Your task to perform on an android device: open app "Fetch Rewards" (install if not already installed) Image 0: 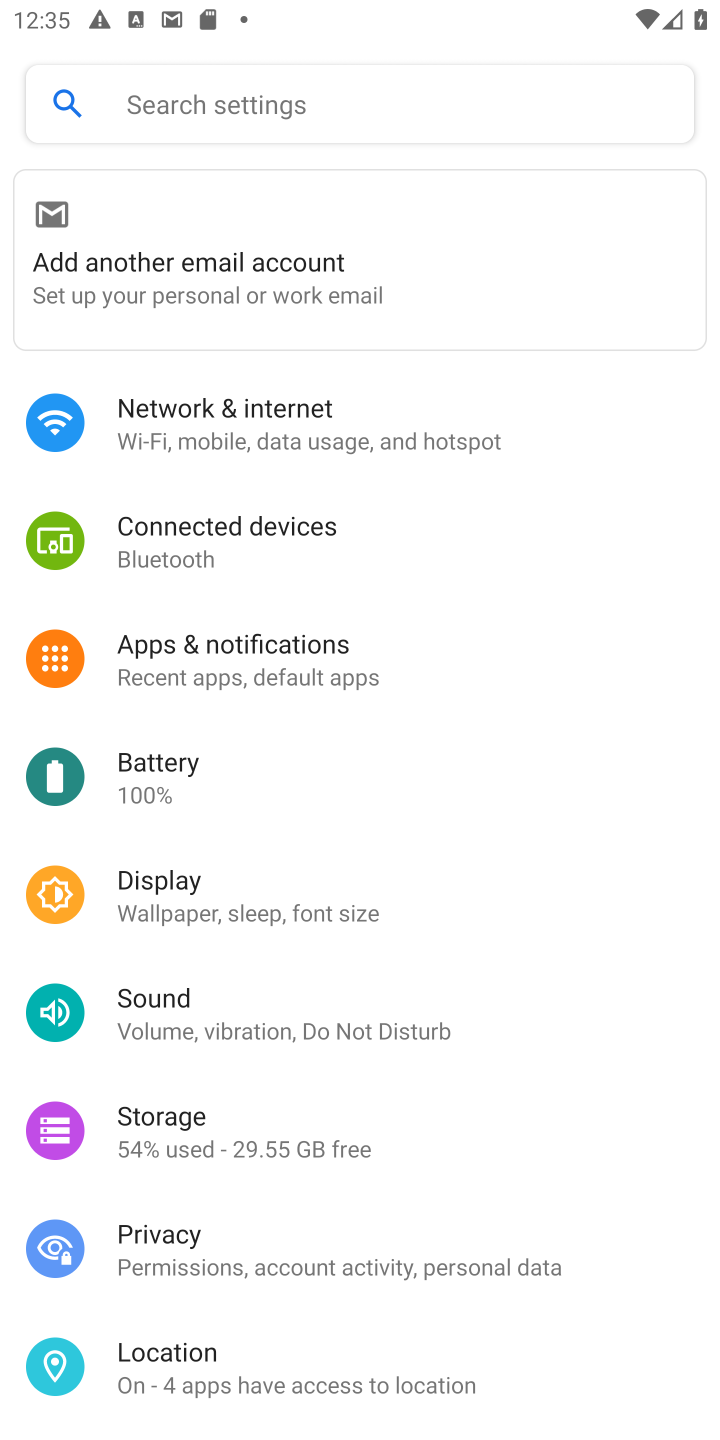
Step 0: press home button
Your task to perform on an android device: open app "Fetch Rewards" (install if not already installed) Image 1: 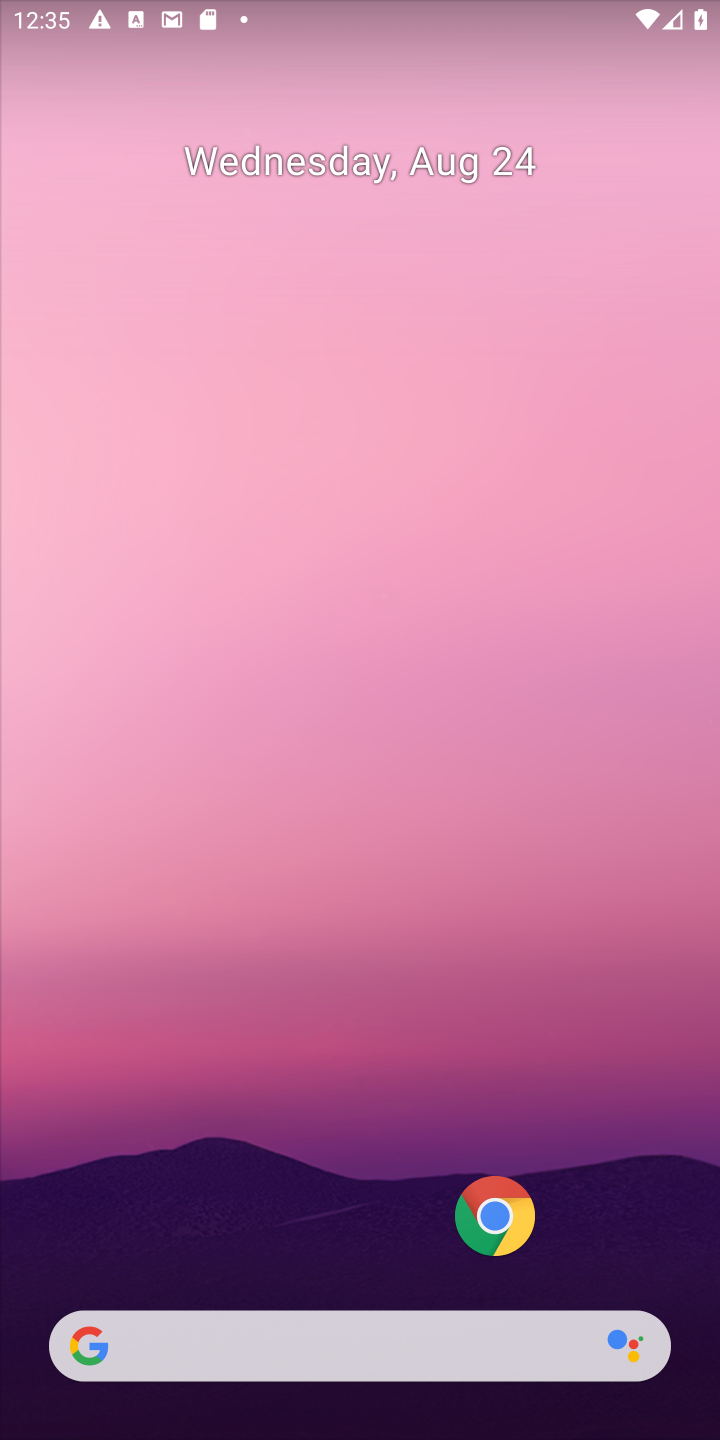
Step 1: drag from (215, 1354) to (383, 11)
Your task to perform on an android device: open app "Fetch Rewards" (install if not already installed) Image 2: 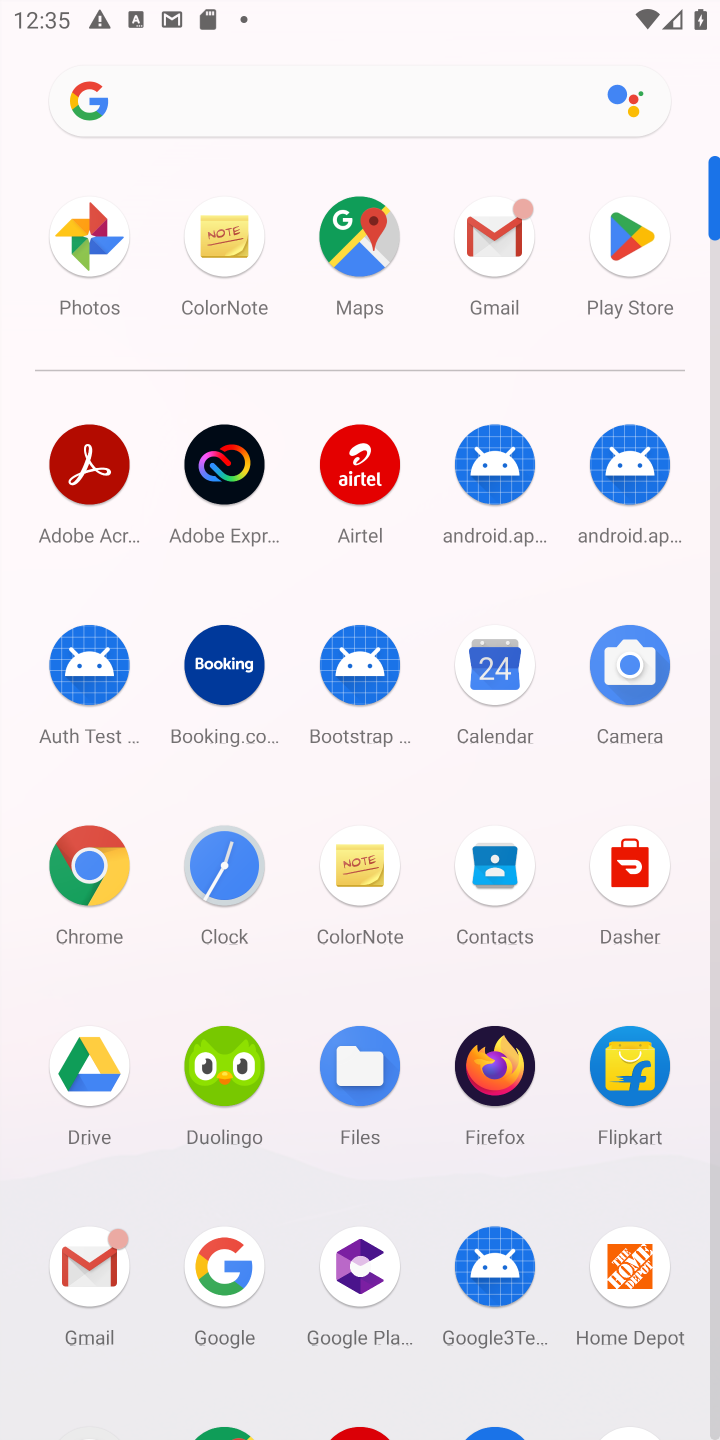
Step 2: click (632, 247)
Your task to perform on an android device: open app "Fetch Rewards" (install if not already installed) Image 3: 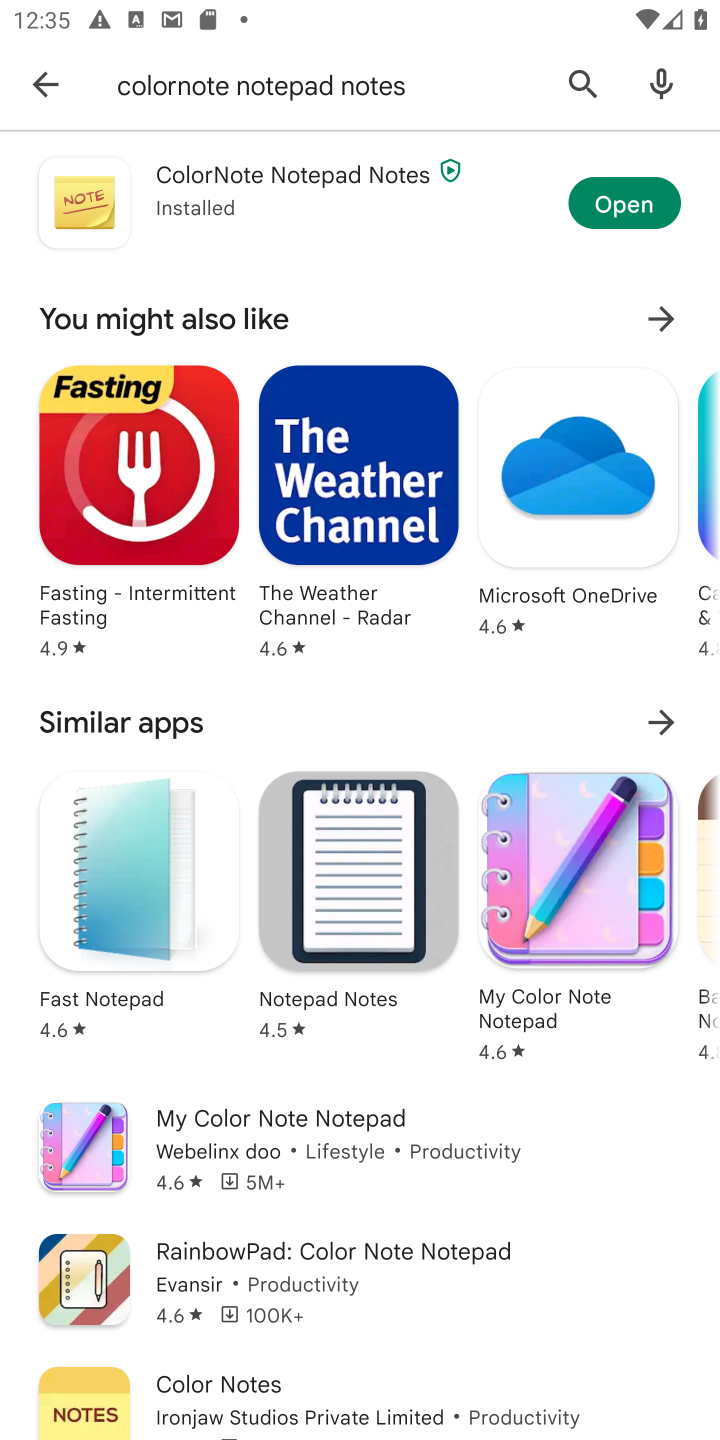
Step 3: press back button
Your task to perform on an android device: open app "Fetch Rewards" (install if not already installed) Image 4: 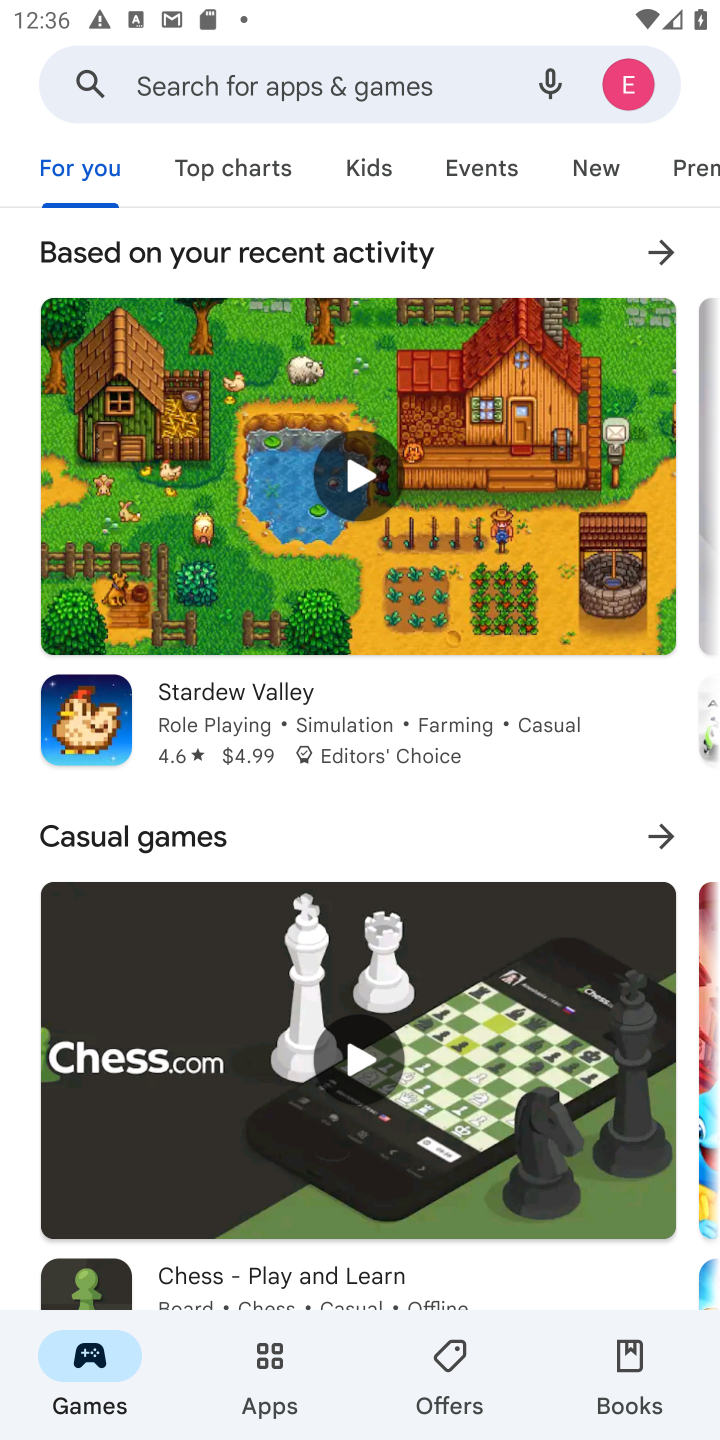
Step 4: click (453, 107)
Your task to perform on an android device: open app "Fetch Rewards" (install if not already installed) Image 5: 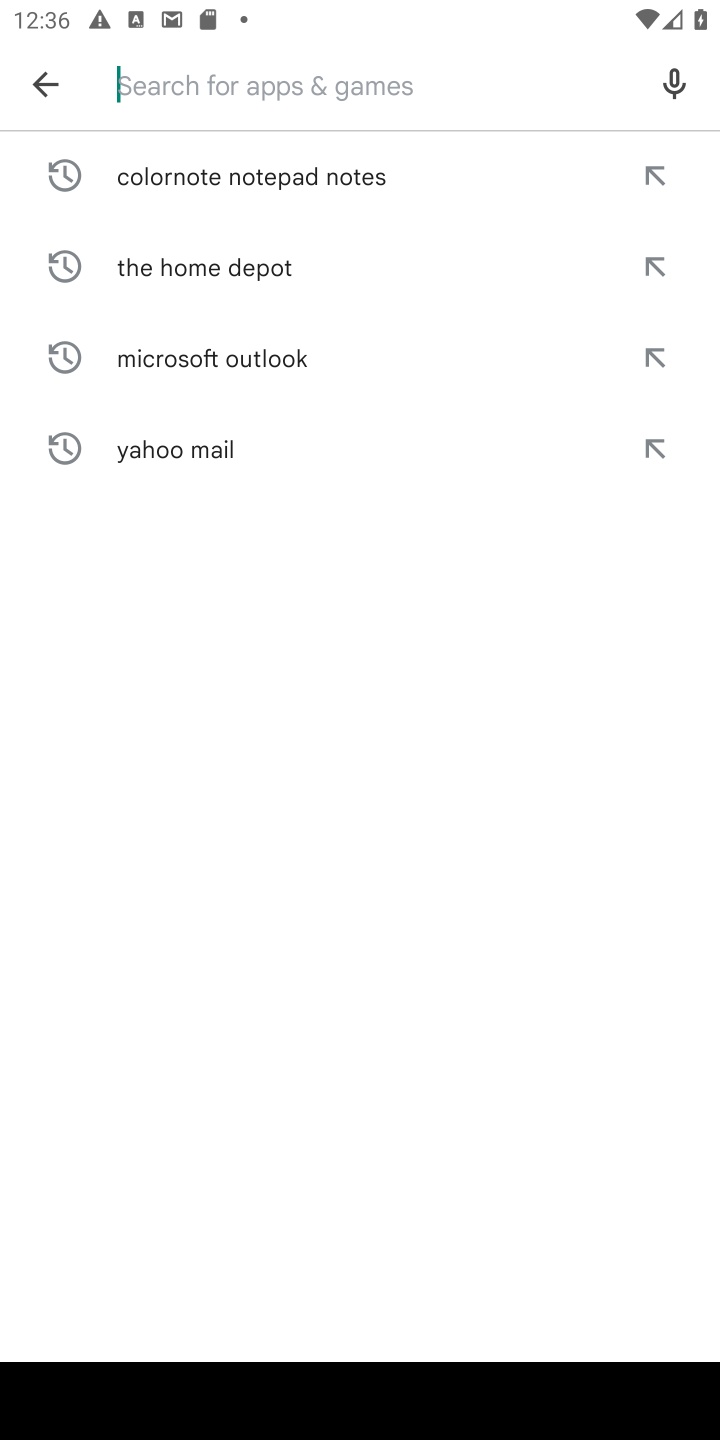
Step 5: type "Fetch Rewards"
Your task to perform on an android device: open app "Fetch Rewards" (install if not already installed) Image 6: 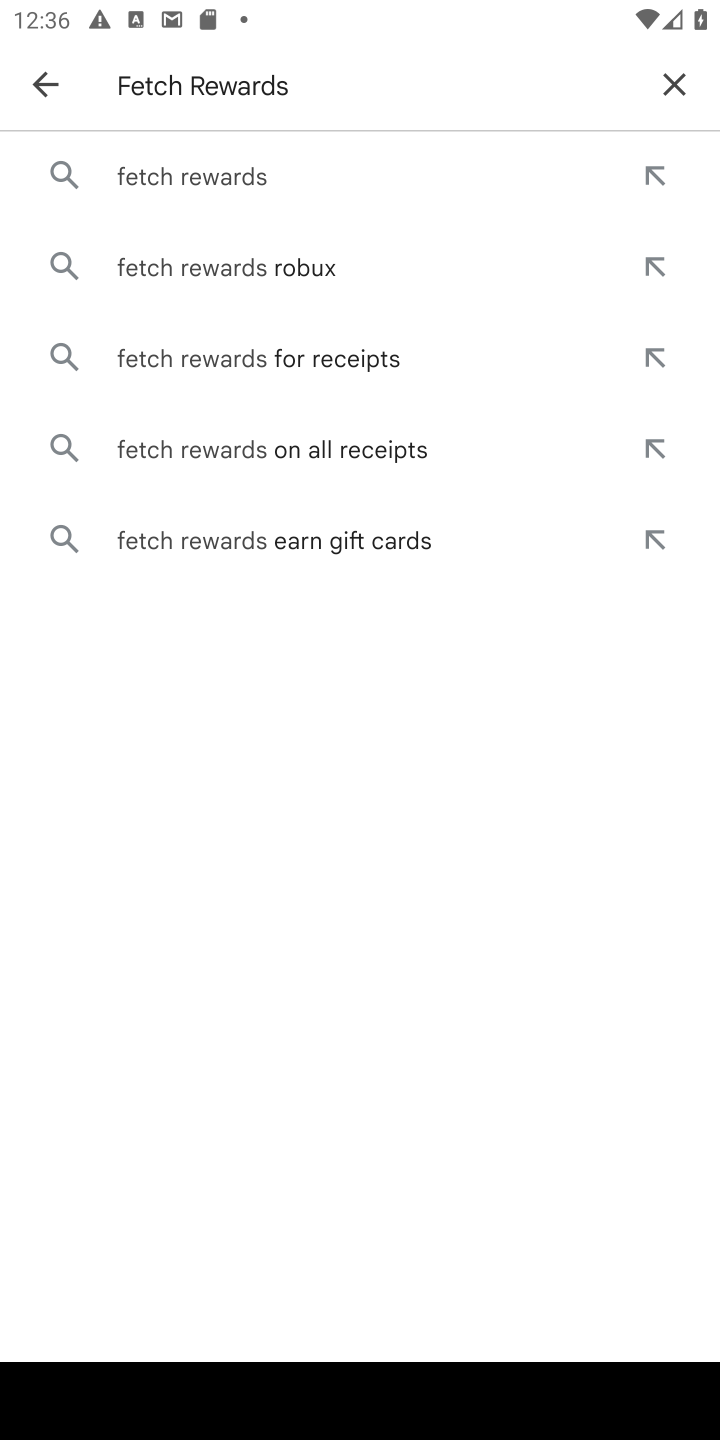
Step 6: click (212, 187)
Your task to perform on an android device: open app "Fetch Rewards" (install if not already installed) Image 7: 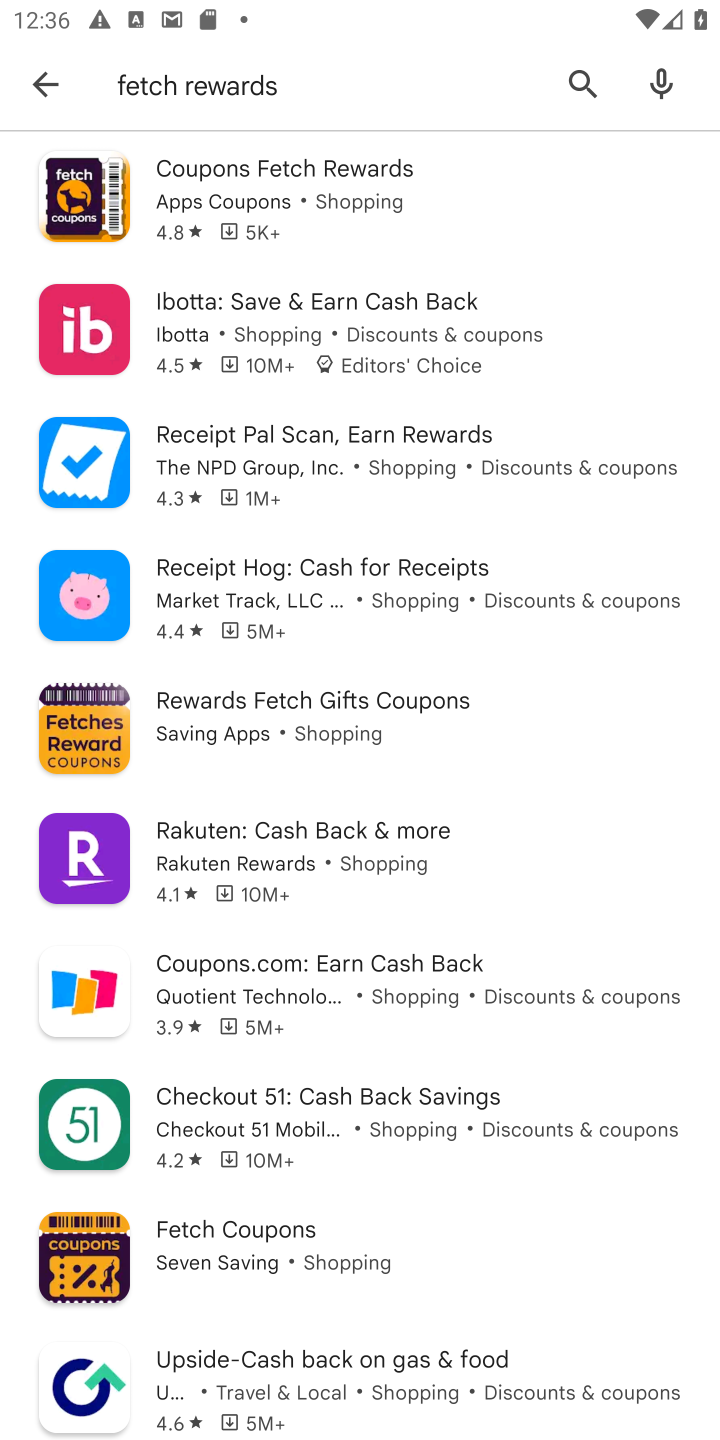
Step 7: task complete